Your task to perform on an android device: Open the map Image 0: 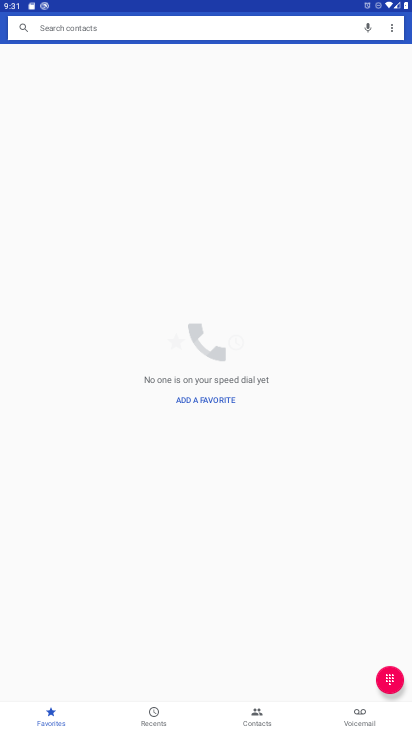
Step 0: press home button
Your task to perform on an android device: Open the map Image 1: 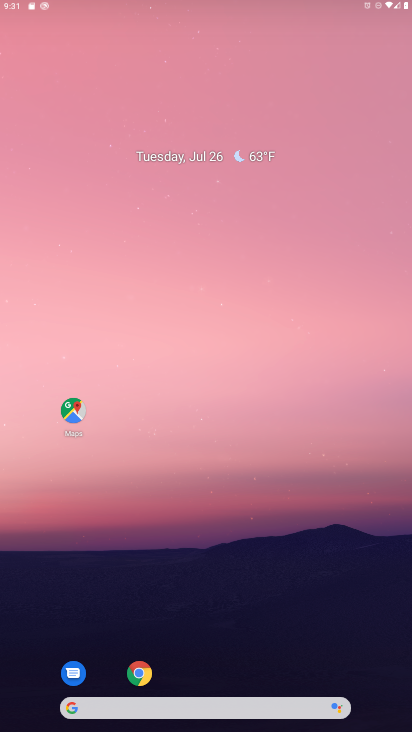
Step 1: drag from (362, 640) to (166, 101)
Your task to perform on an android device: Open the map Image 2: 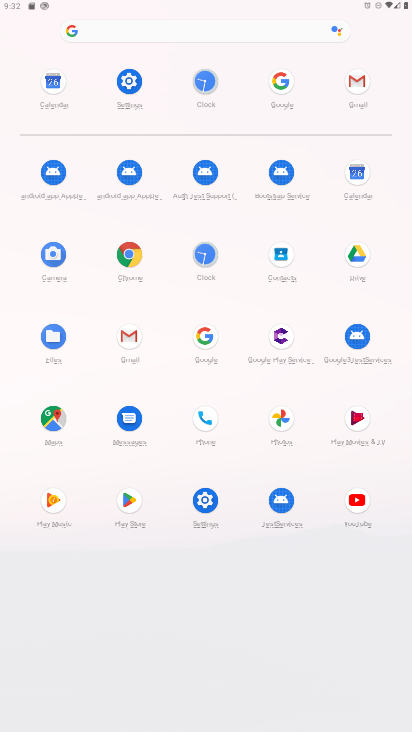
Step 2: click (54, 422)
Your task to perform on an android device: Open the map Image 3: 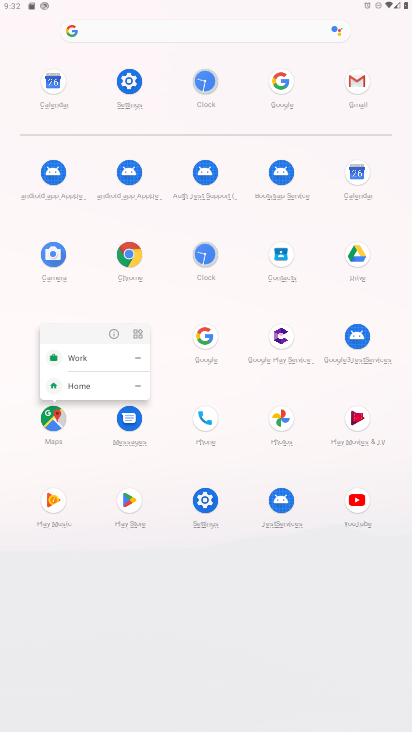
Step 3: click (54, 422)
Your task to perform on an android device: Open the map Image 4: 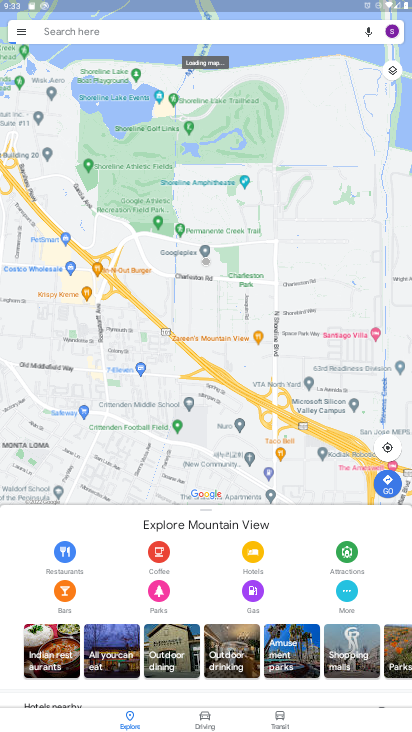
Step 4: task complete